Your task to perform on an android device: move an email to a new category in the gmail app Image 0: 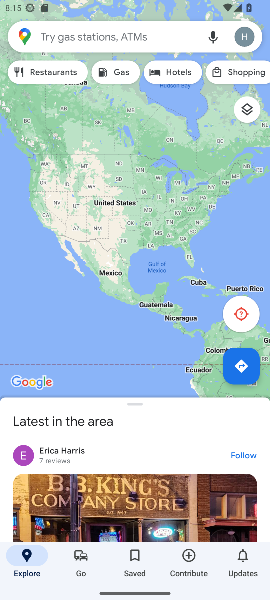
Step 0: press home button
Your task to perform on an android device: move an email to a new category in the gmail app Image 1: 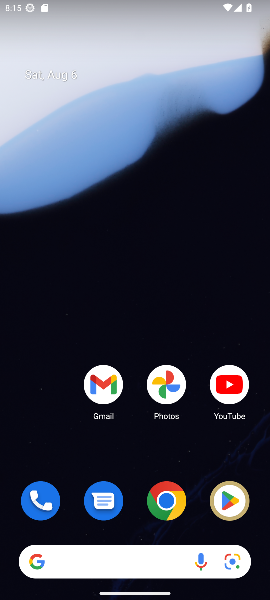
Step 1: click (95, 386)
Your task to perform on an android device: move an email to a new category in the gmail app Image 2: 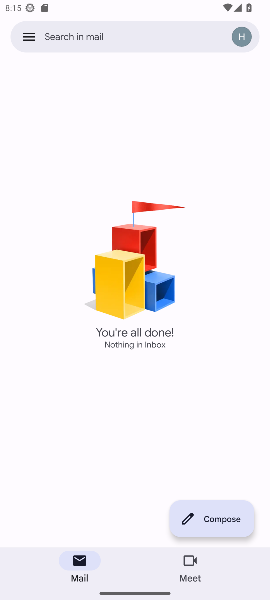
Step 2: click (33, 38)
Your task to perform on an android device: move an email to a new category in the gmail app Image 3: 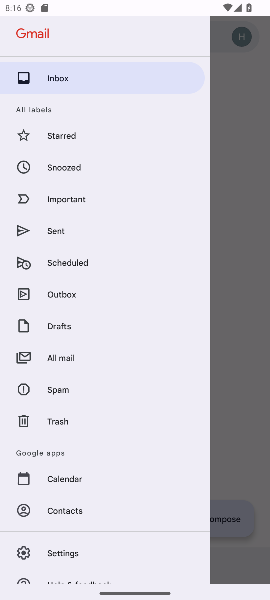
Step 3: task complete